Your task to perform on an android device: Open Youtube and go to "Your channel" Image 0: 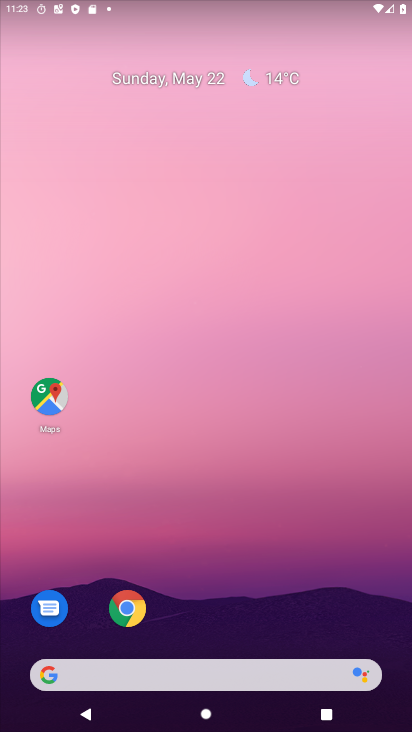
Step 0: drag from (224, 723) to (161, 87)
Your task to perform on an android device: Open Youtube and go to "Your channel" Image 1: 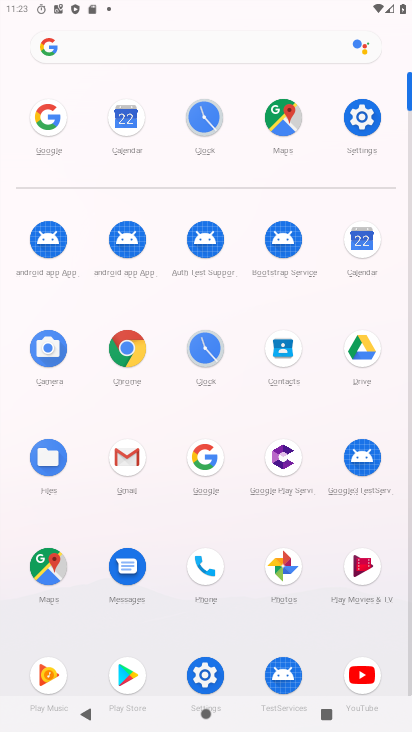
Step 1: click (359, 671)
Your task to perform on an android device: Open Youtube and go to "Your channel" Image 2: 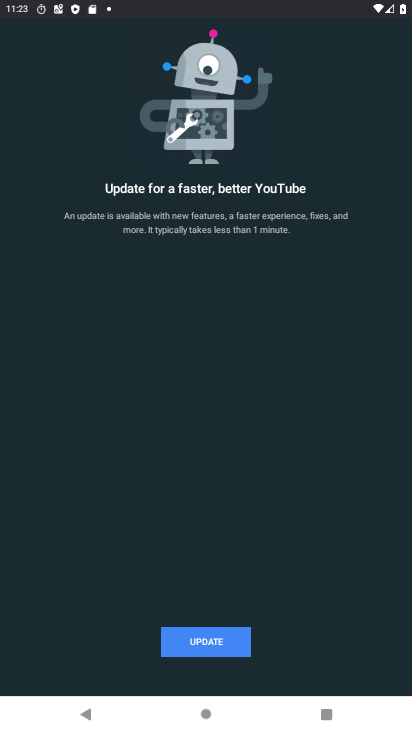
Step 2: task complete